Your task to perform on an android device: Open sound settings Image 0: 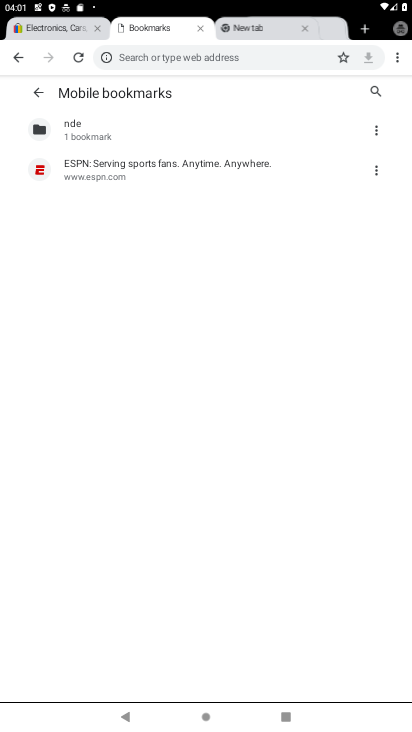
Step 0: press home button
Your task to perform on an android device: Open sound settings Image 1: 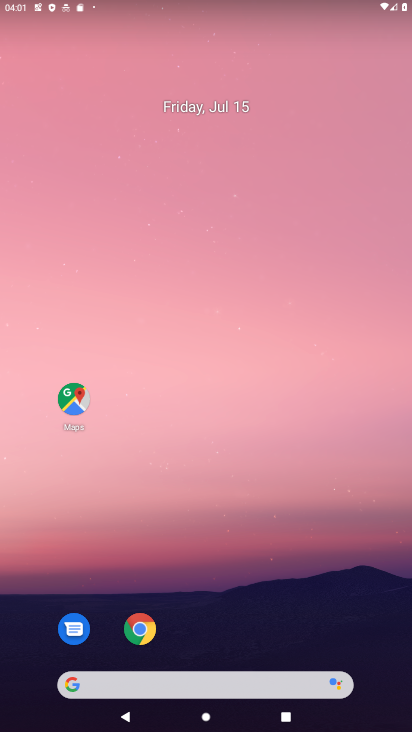
Step 1: drag from (193, 580) to (235, 154)
Your task to perform on an android device: Open sound settings Image 2: 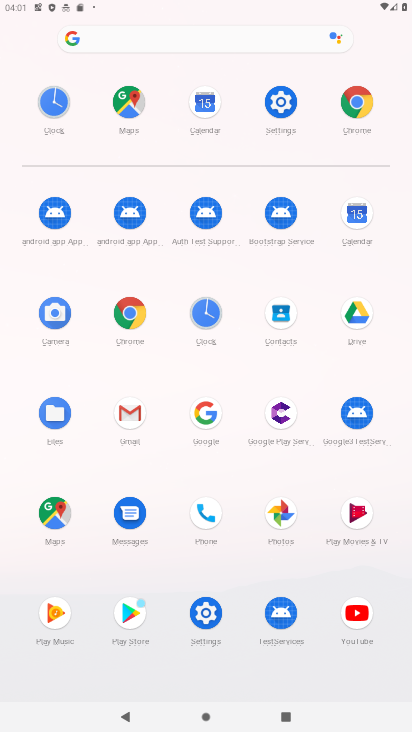
Step 2: click (207, 609)
Your task to perform on an android device: Open sound settings Image 3: 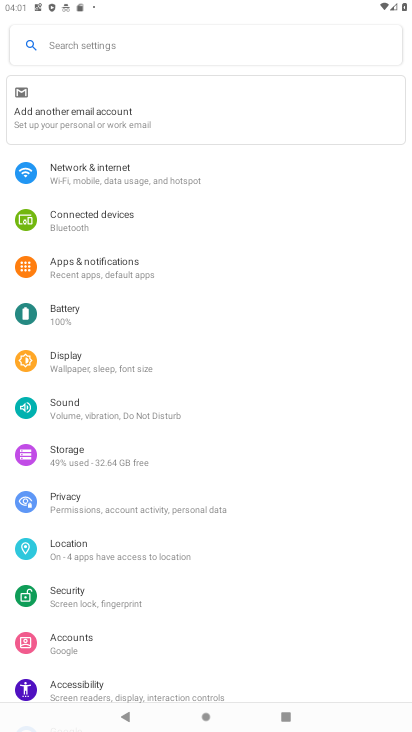
Step 3: click (64, 402)
Your task to perform on an android device: Open sound settings Image 4: 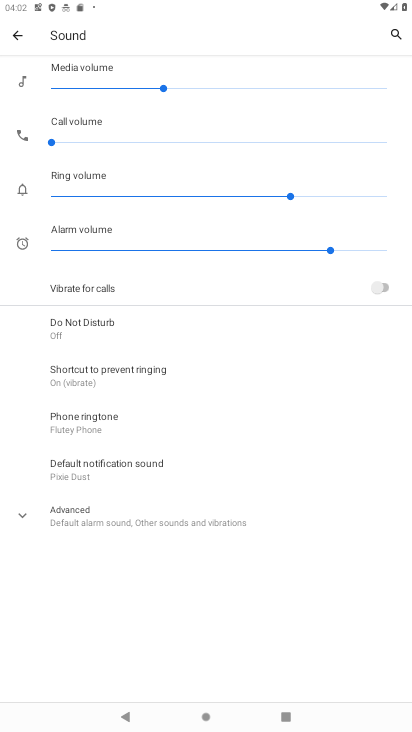
Step 4: task complete